Your task to perform on an android device: create a new album in the google photos Image 0: 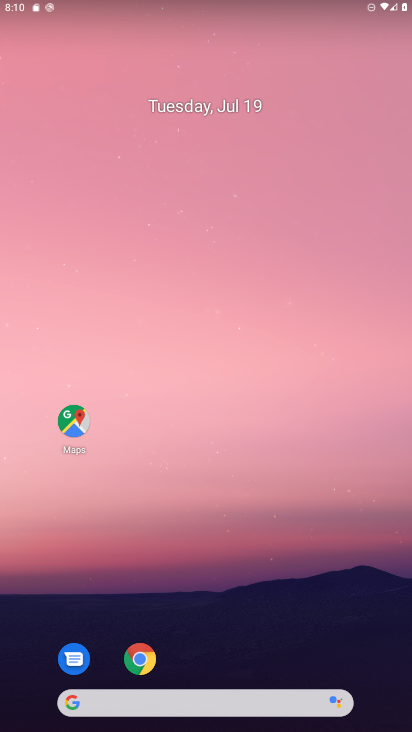
Step 0: drag from (237, 691) to (249, 205)
Your task to perform on an android device: create a new album in the google photos Image 1: 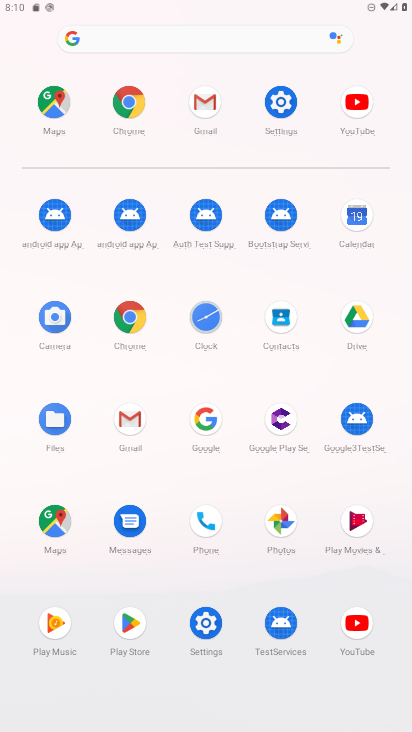
Step 1: click (274, 525)
Your task to perform on an android device: create a new album in the google photos Image 2: 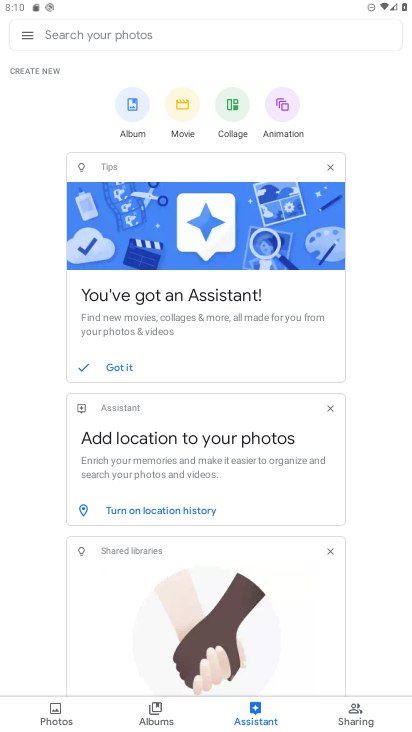
Step 2: click (69, 711)
Your task to perform on an android device: create a new album in the google photos Image 3: 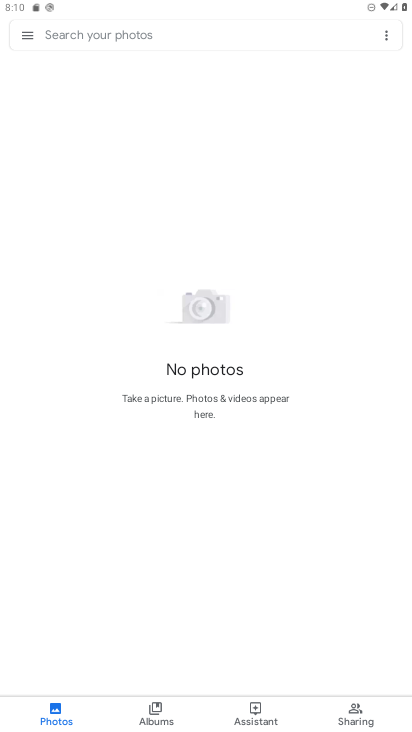
Step 3: click (152, 708)
Your task to perform on an android device: create a new album in the google photos Image 4: 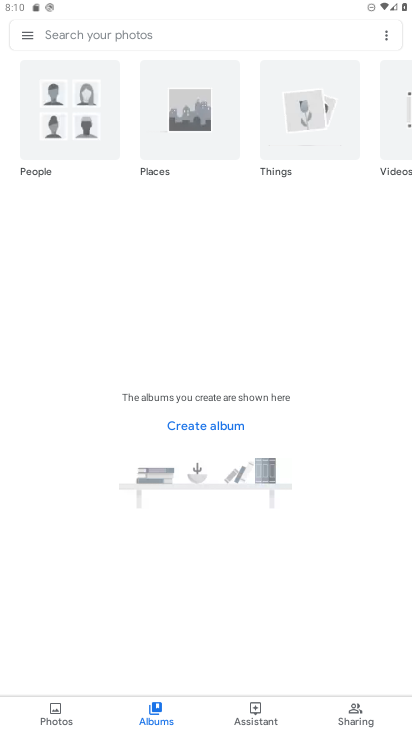
Step 4: click (64, 722)
Your task to perform on an android device: create a new album in the google photos Image 5: 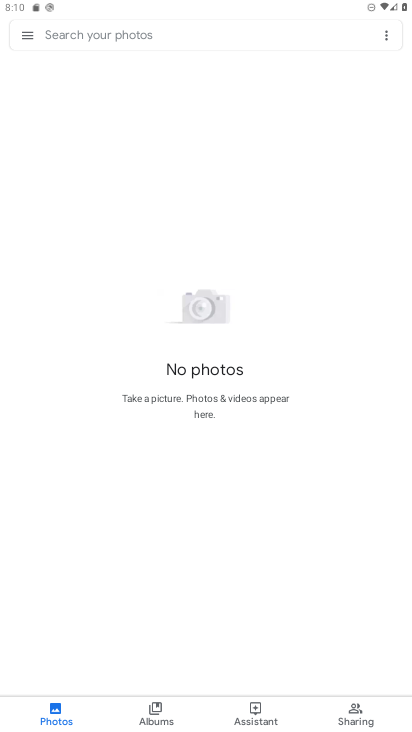
Step 5: task complete